Your task to perform on an android device: Open display settings Image 0: 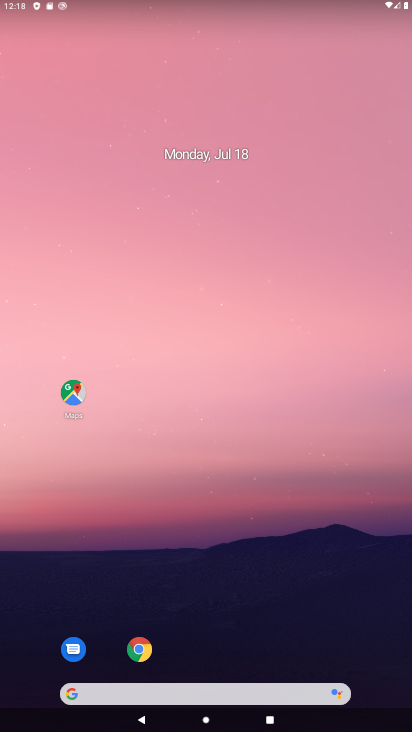
Step 0: drag from (37, 677) to (268, 56)
Your task to perform on an android device: Open display settings Image 1: 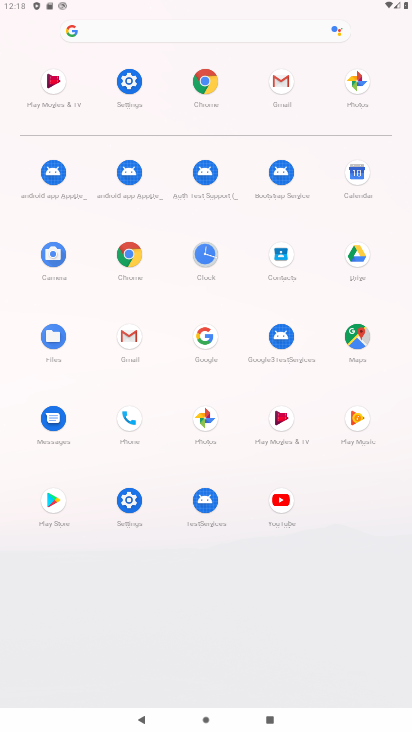
Step 1: click (120, 498)
Your task to perform on an android device: Open display settings Image 2: 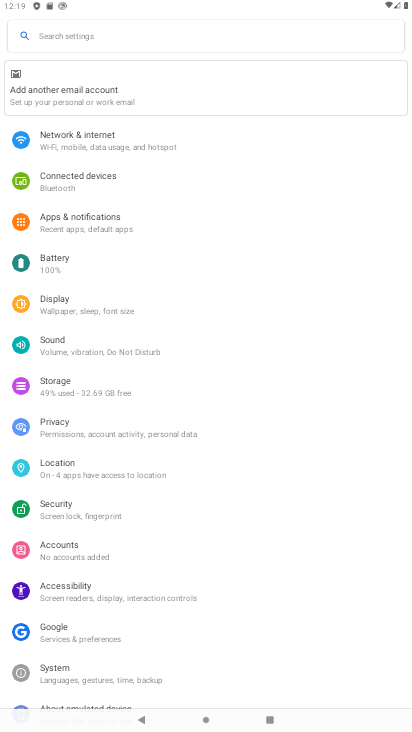
Step 2: click (70, 295)
Your task to perform on an android device: Open display settings Image 3: 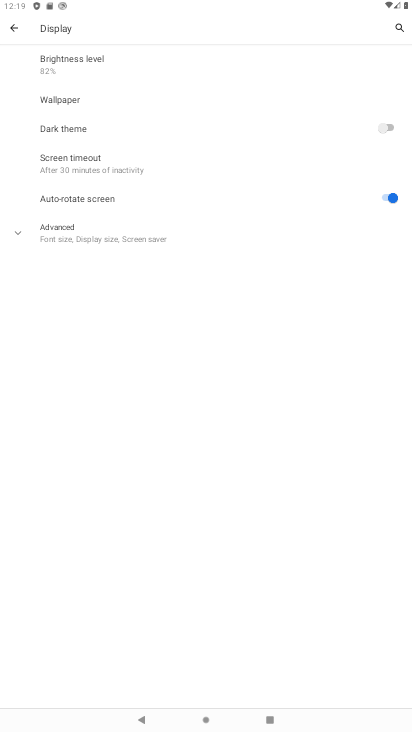
Step 3: task complete